Your task to perform on an android device: Go to internet settings Image 0: 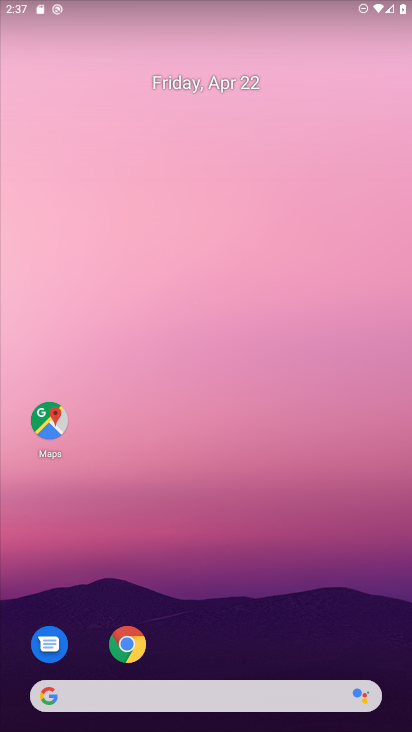
Step 0: drag from (302, 486) to (255, 113)
Your task to perform on an android device: Go to internet settings Image 1: 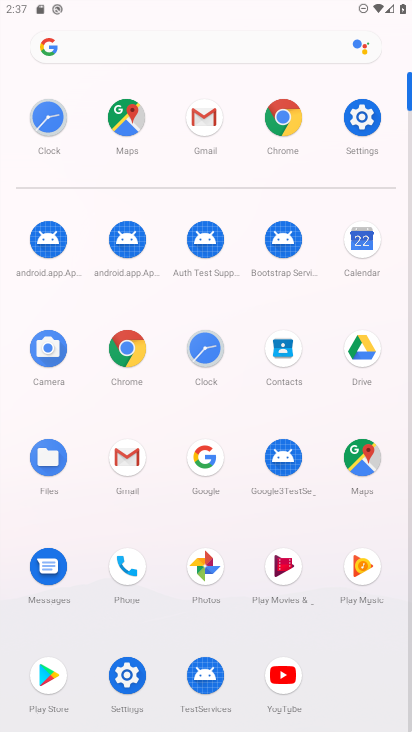
Step 1: click (369, 123)
Your task to perform on an android device: Go to internet settings Image 2: 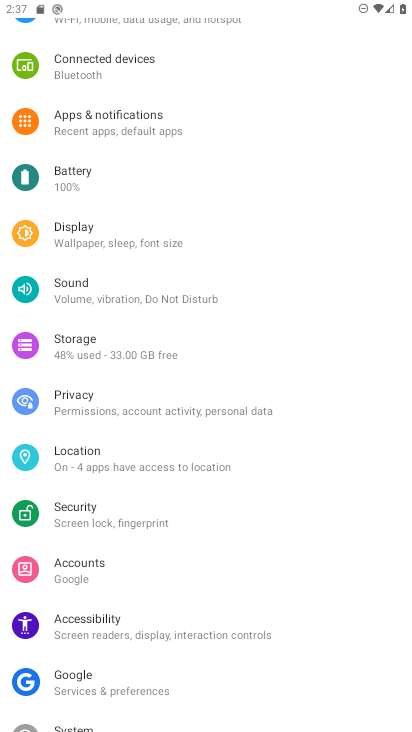
Step 2: drag from (125, 70) to (181, 604)
Your task to perform on an android device: Go to internet settings Image 3: 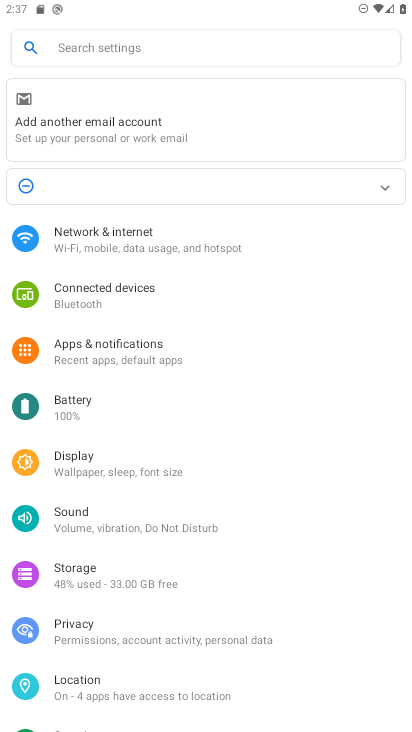
Step 3: click (117, 233)
Your task to perform on an android device: Go to internet settings Image 4: 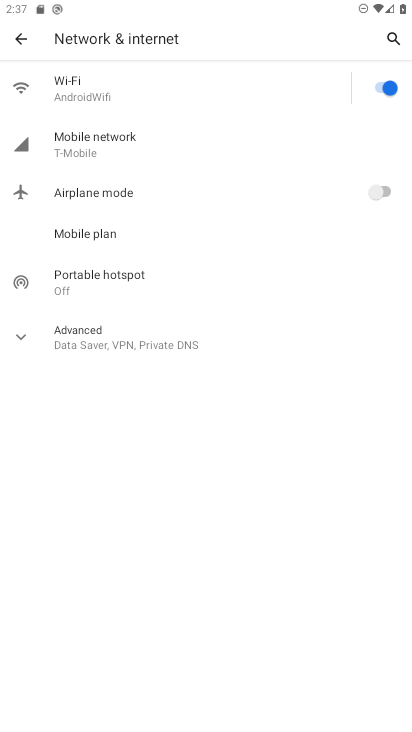
Step 4: task complete